Your task to perform on an android device: change alarm snooze length Image 0: 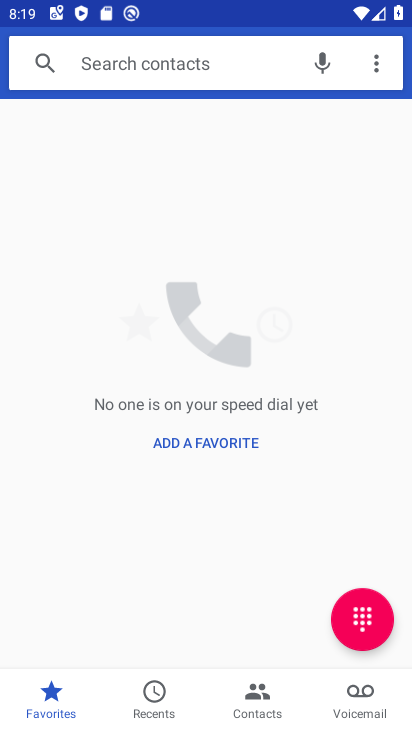
Step 0: press home button
Your task to perform on an android device: change alarm snooze length Image 1: 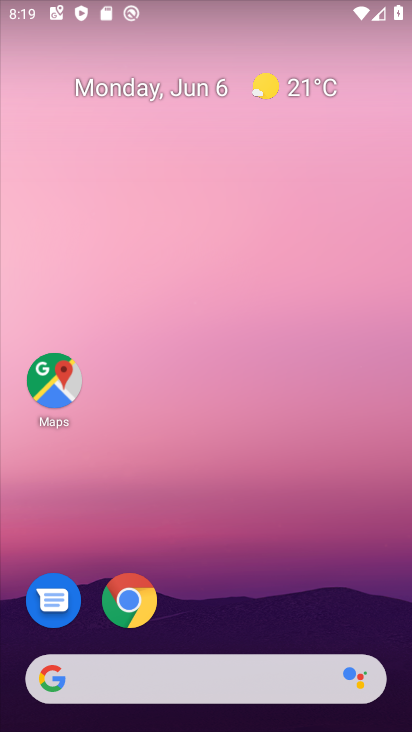
Step 1: drag from (363, 611) to (269, 68)
Your task to perform on an android device: change alarm snooze length Image 2: 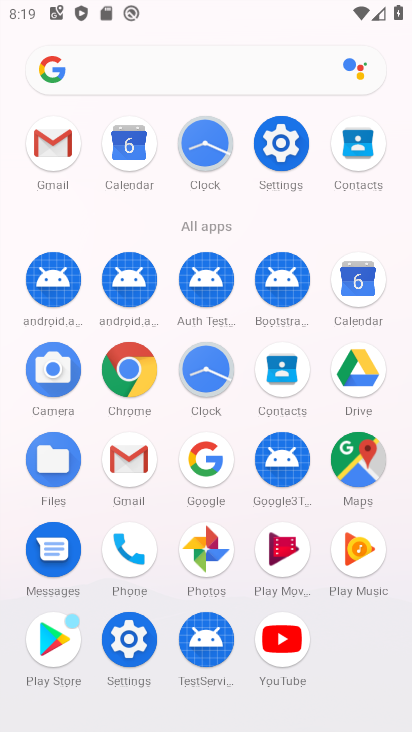
Step 2: click (208, 364)
Your task to perform on an android device: change alarm snooze length Image 3: 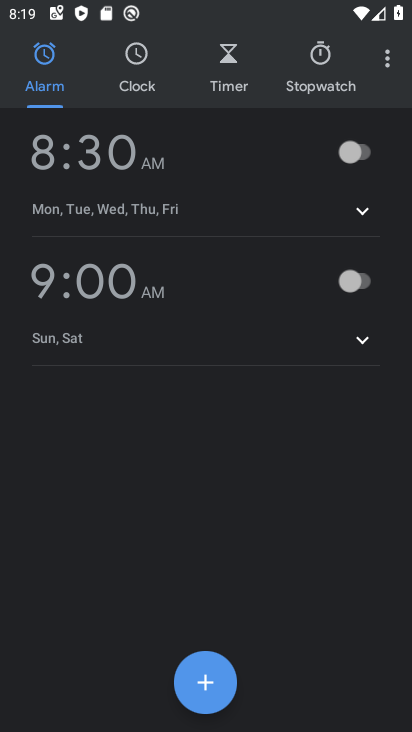
Step 3: click (384, 64)
Your task to perform on an android device: change alarm snooze length Image 4: 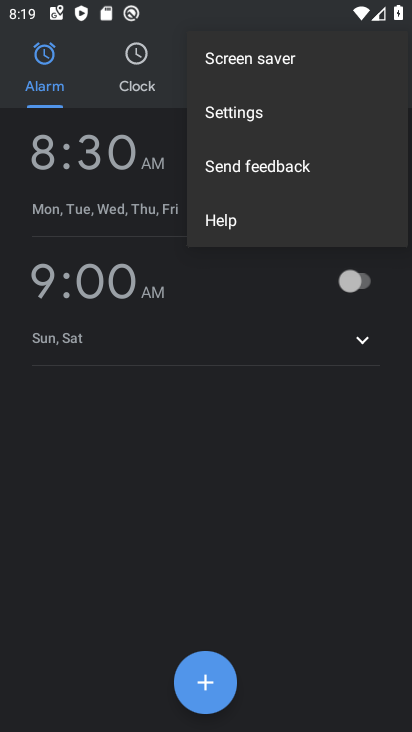
Step 4: click (216, 112)
Your task to perform on an android device: change alarm snooze length Image 5: 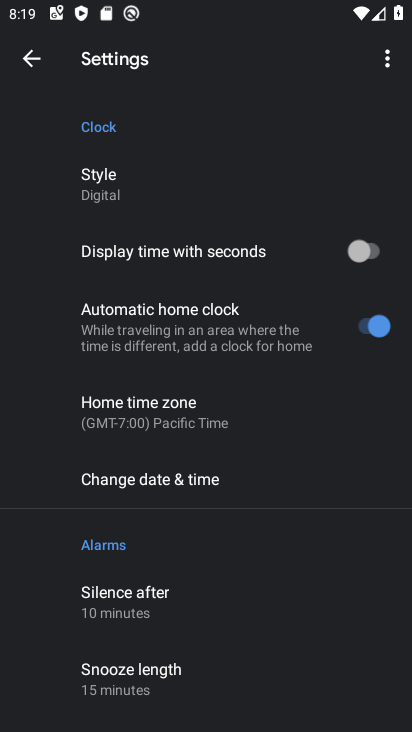
Step 5: click (98, 670)
Your task to perform on an android device: change alarm snooze length Image 6: 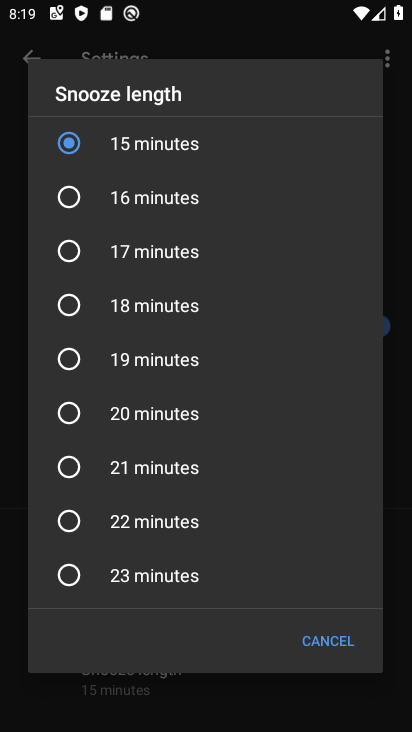
Step 6: click (73, 408)
Your task to perform on an android device: change alarm snooze length Image 7: 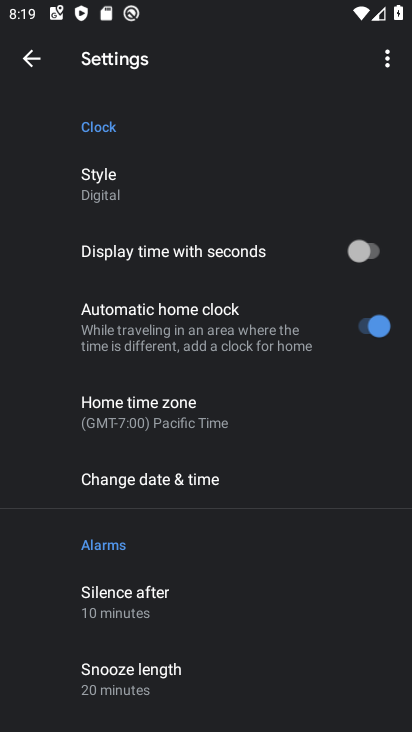
Step 7: task complete